Your task to perform on an android device: toggle wifi Image 0: 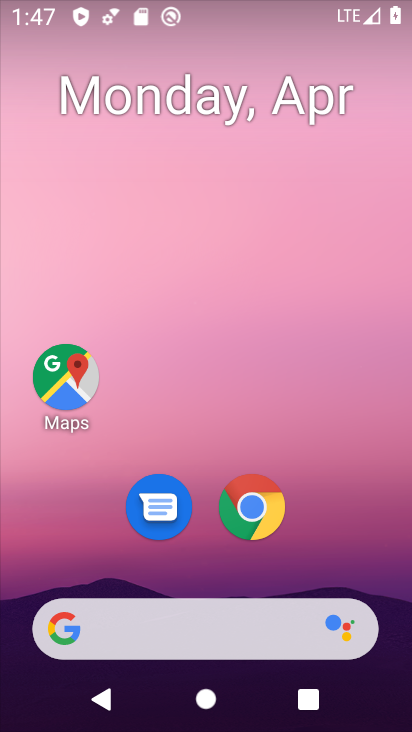
Step 0: drag from (394, 641) to (392, 113)
Your task to perform on an android device: toggle wifi Image 1: 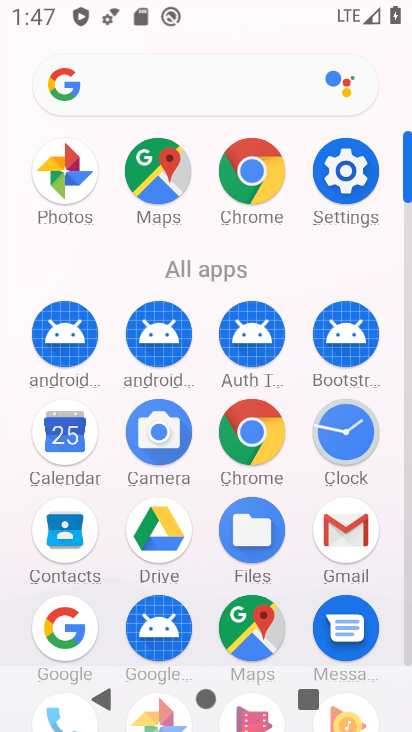
Step 1: click (408, 648)
Your task to perform on an android device: toggle wifi Image 2: 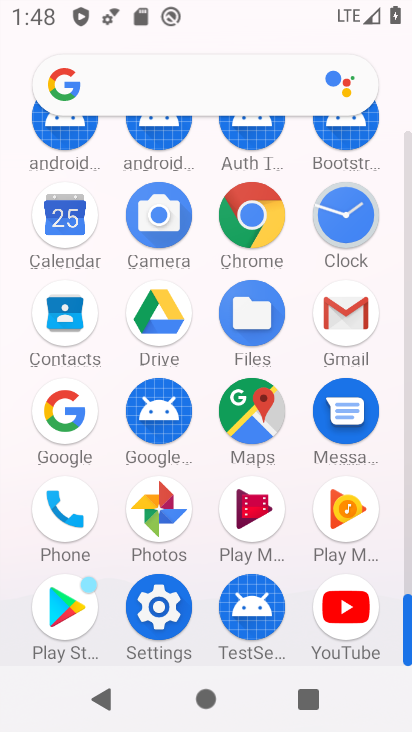
Step 2: click (157, 606)
Your task to perform on an android device: toggle wifi Image 3: 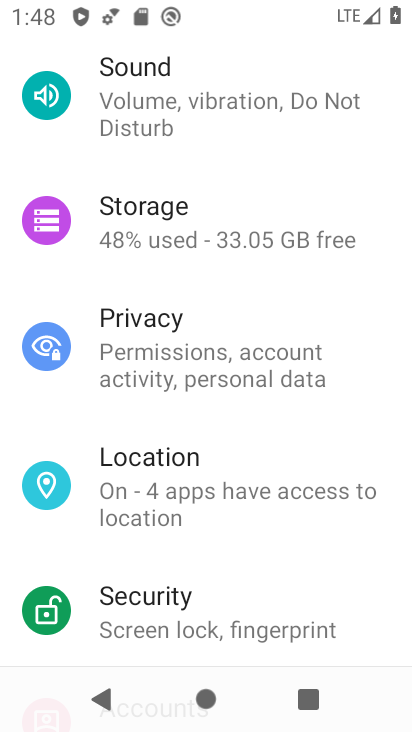
Step 3: drag from (378, 220) to (339, 529)
Your task to perform on an android device: toggle wifi Image 4: 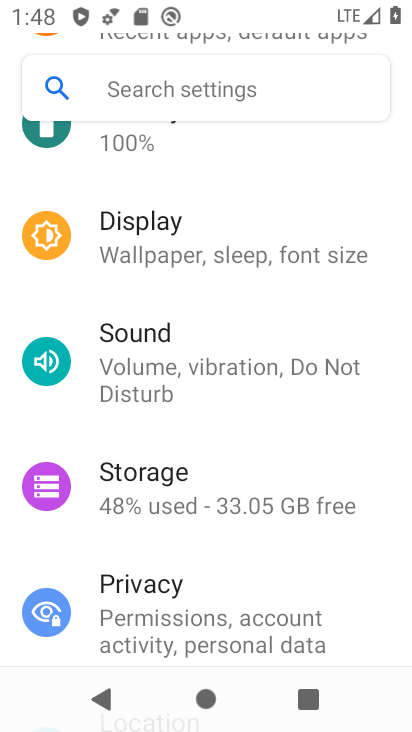
Step 4: drag from (384, 239) to (343, 590)
Your task to perform on an android device: toggle wifi Image 5: 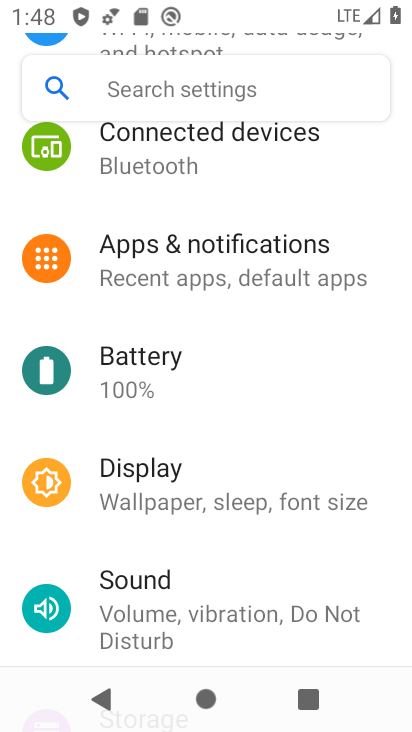
Step 5: drag from (384, 279) to (365, 662)
Your task to perform on an android device: toggle wifi Image 6: 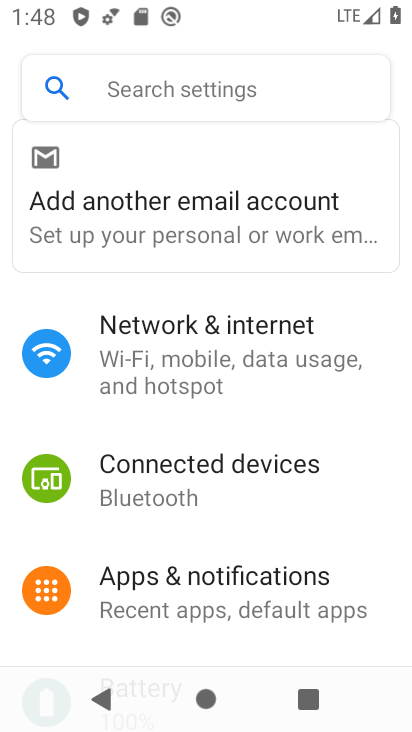
Step 6: click (168, 352)
Your task to perform on an android device: toggle wifi Image 7: 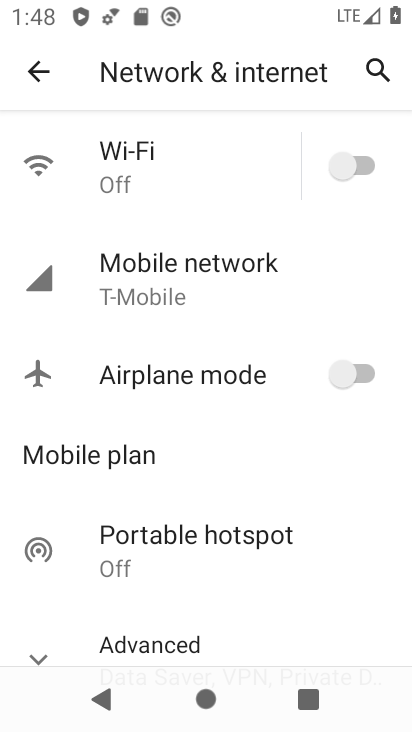
Step 7: click (361, 161)
Your task to perform on an android device: toggle wifi Image 8: 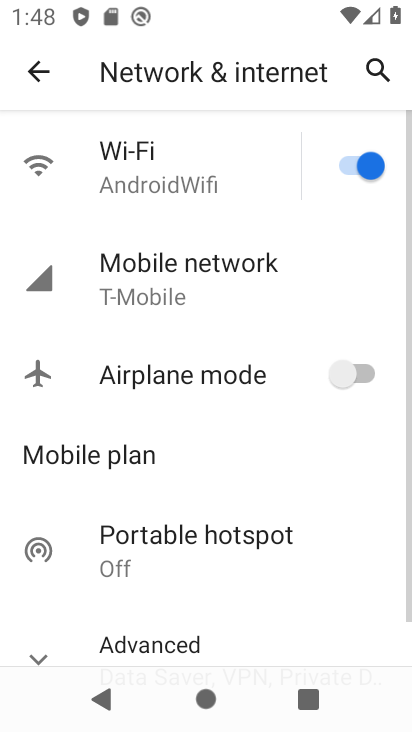
Step 8: task complete